Your task to perform on an android device: Search for seafood restaurants on Google Maps Image 0: 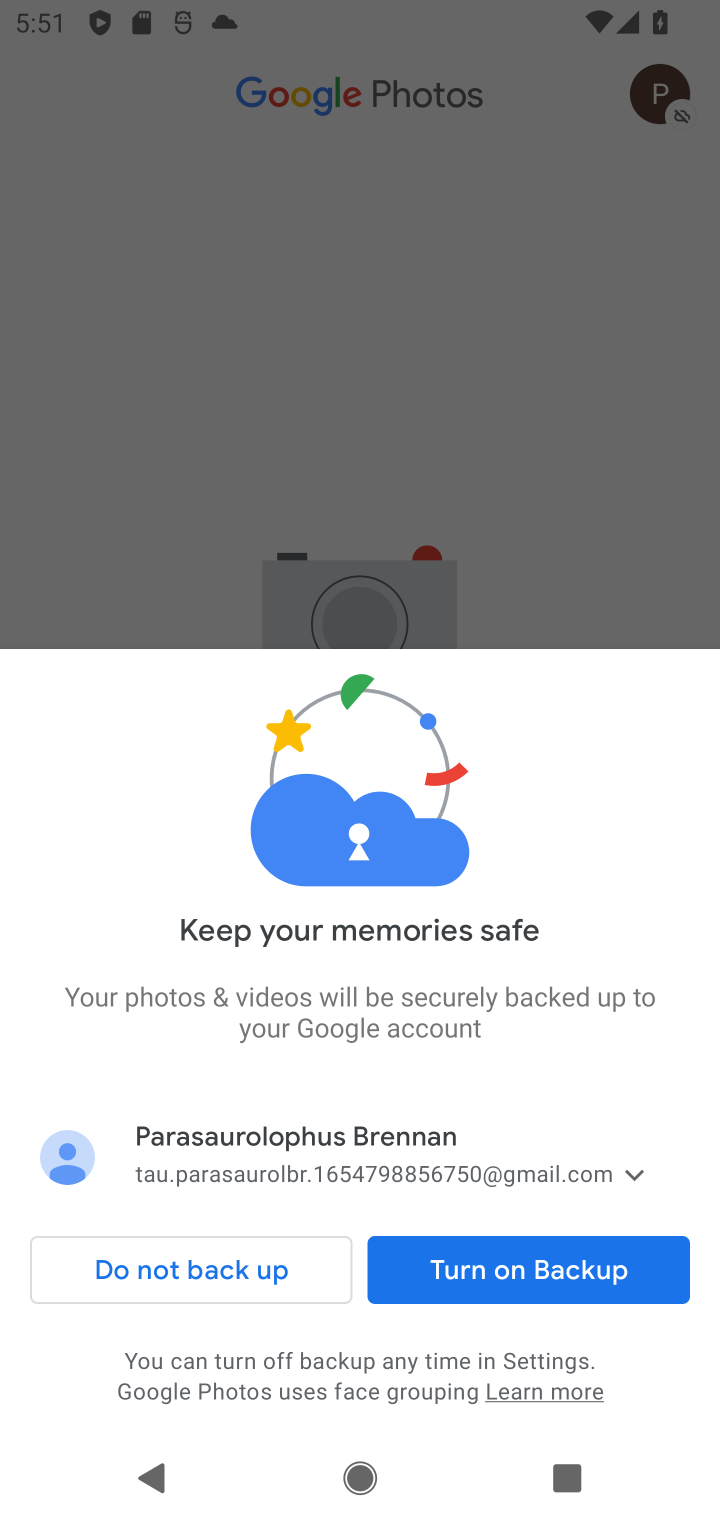
Step 0: press home button
Your task to perform on an android device: Search for seafood restaurants on Google Maps Image 1: 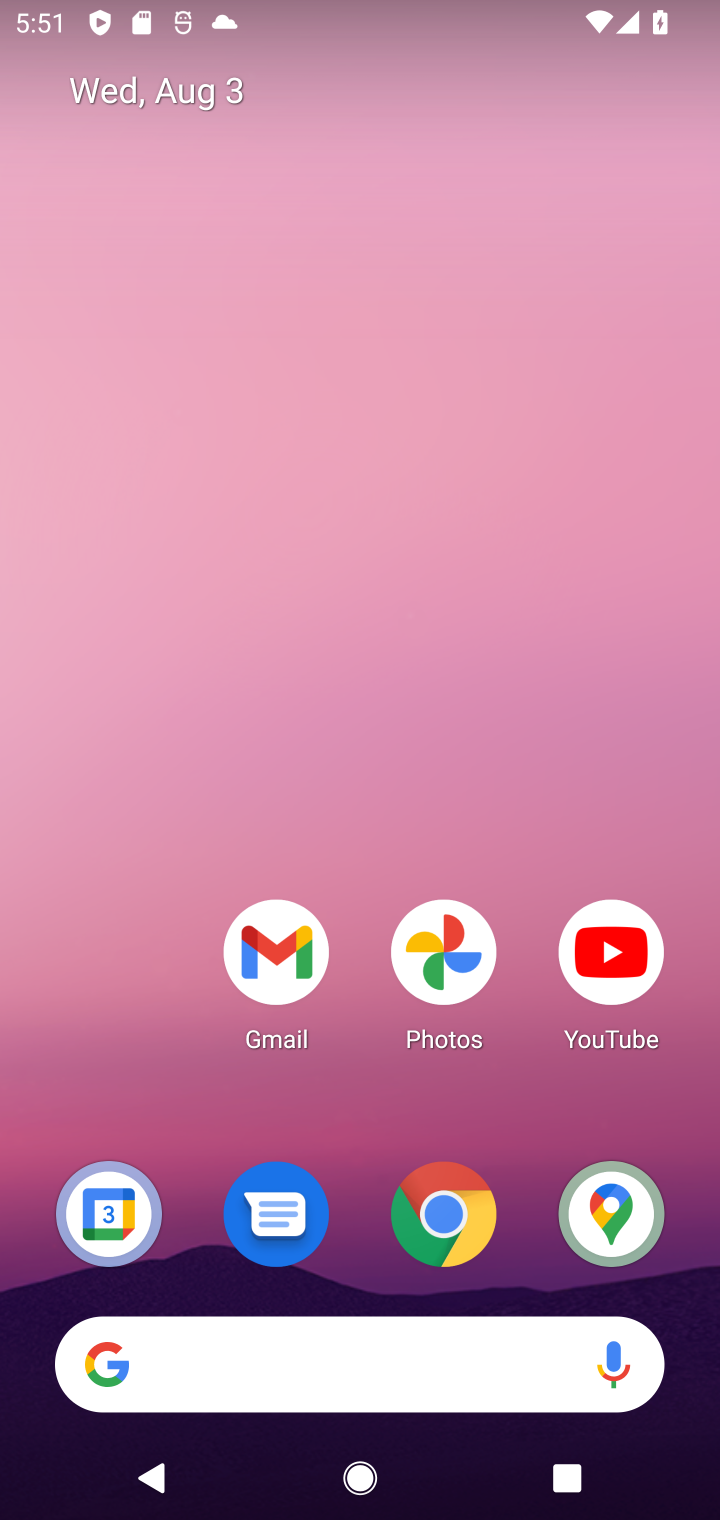
Step 1: drag from (475, 1212) to (444, 142)
Your task to perform on an android device: Search for seafood restaurants on Google Maps Image 2: 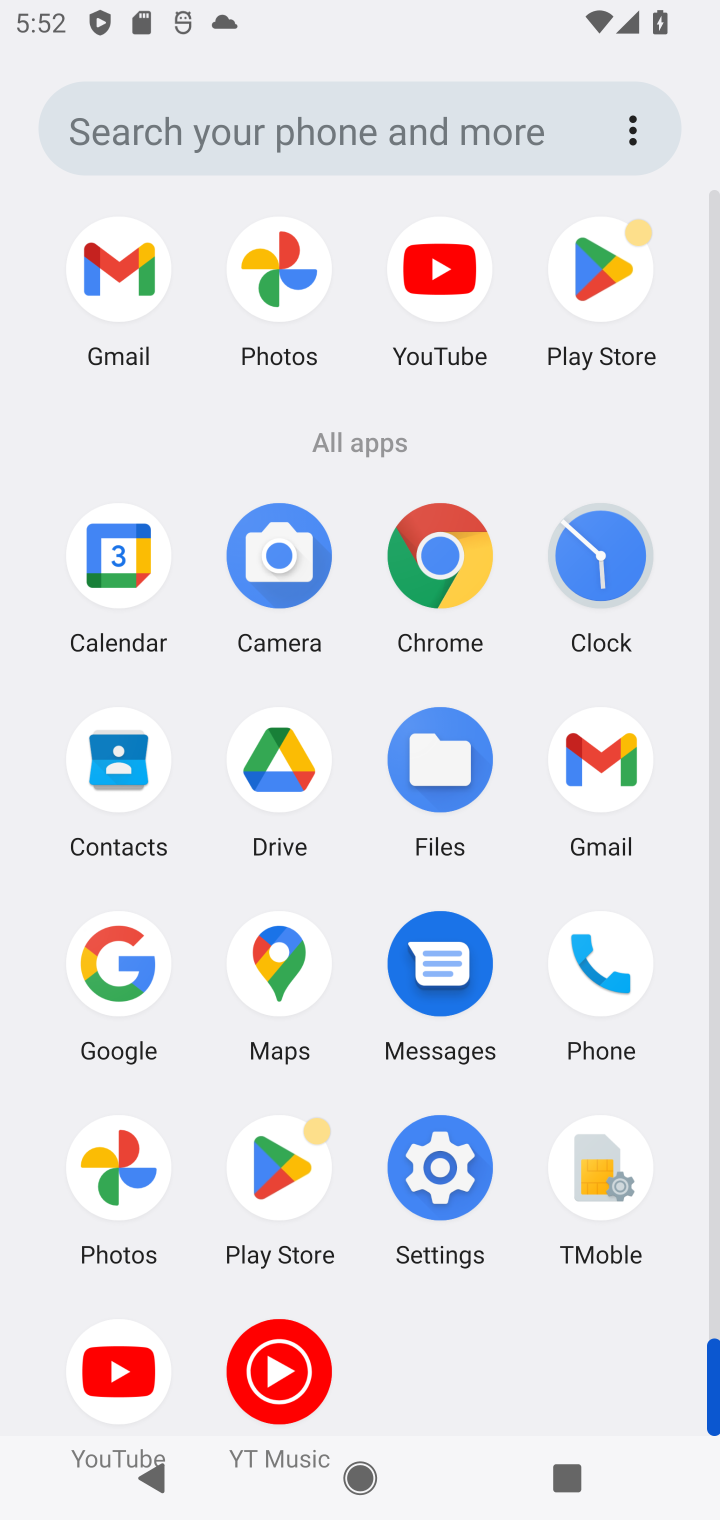
Step 2: click (314, 979)
Your task to perform on an android device: Search for seafood restaurants on Google Maps Image 3: 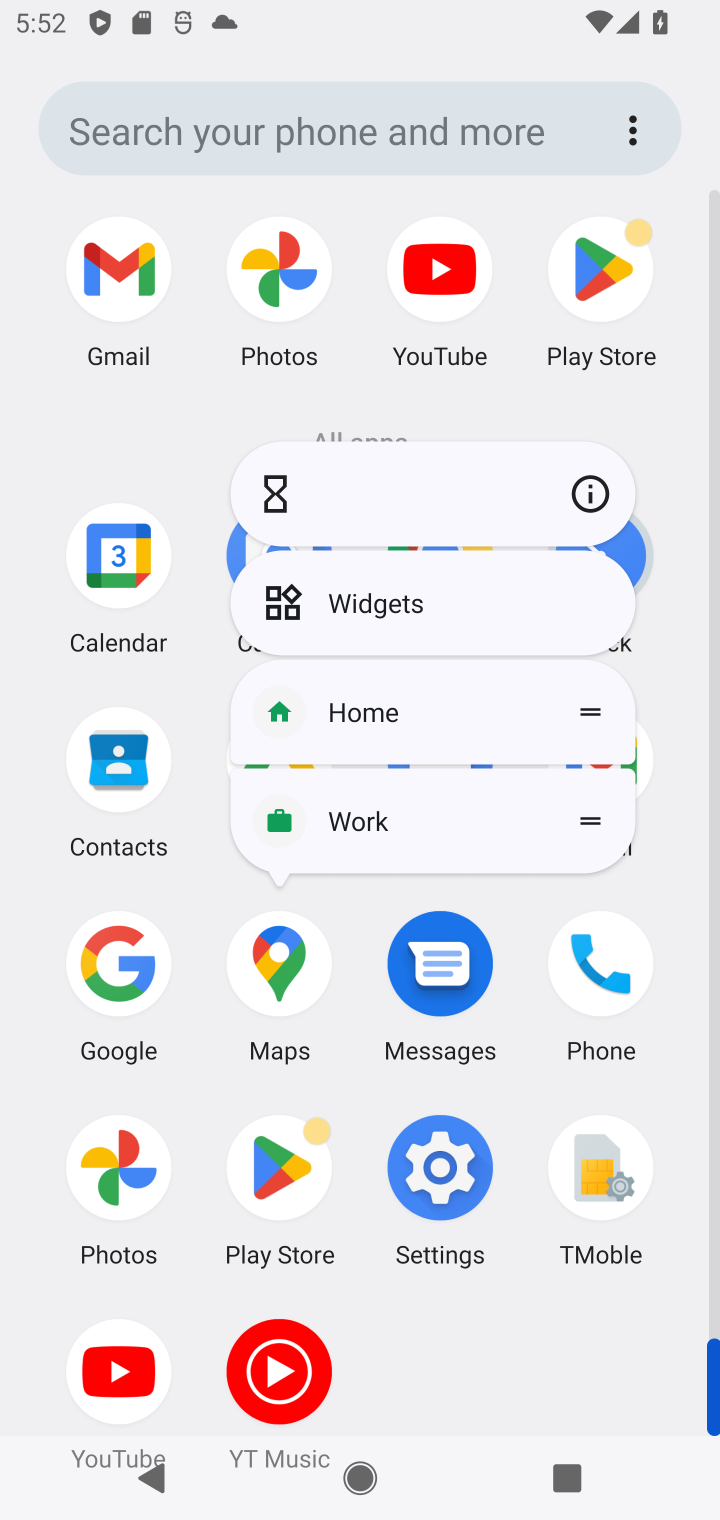
Step 3: click (297, 961)
Your task to perform on an android device: Search for seafood restaurants on Google Maps Image 4: 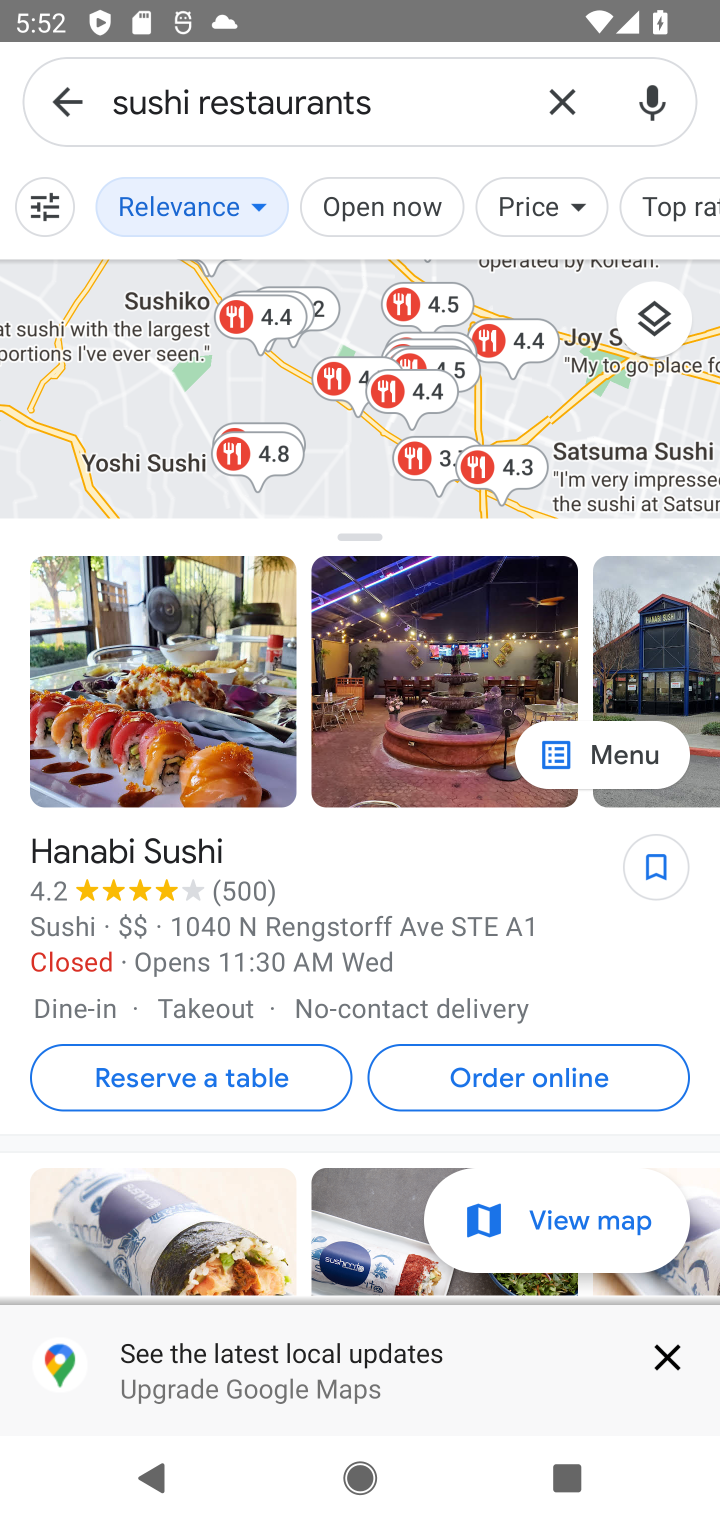
Step 4: click (574, 116)
Your task to perform on an android device: Search for seafood restaurants on Google Maps Image 5: 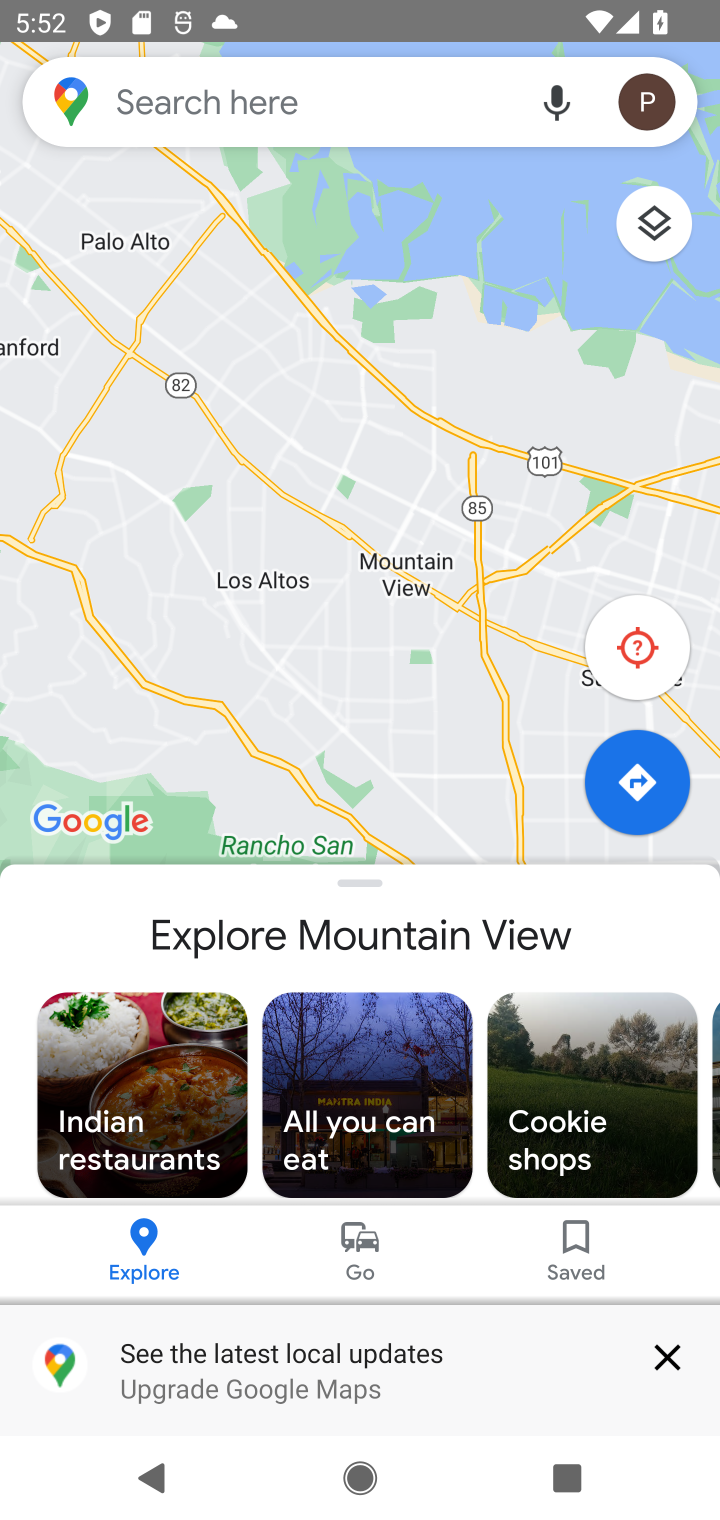
Step 5: click (431, 123)
Your task to perform on an android device: Search for seafood restaurants on Google Maps Image 6: 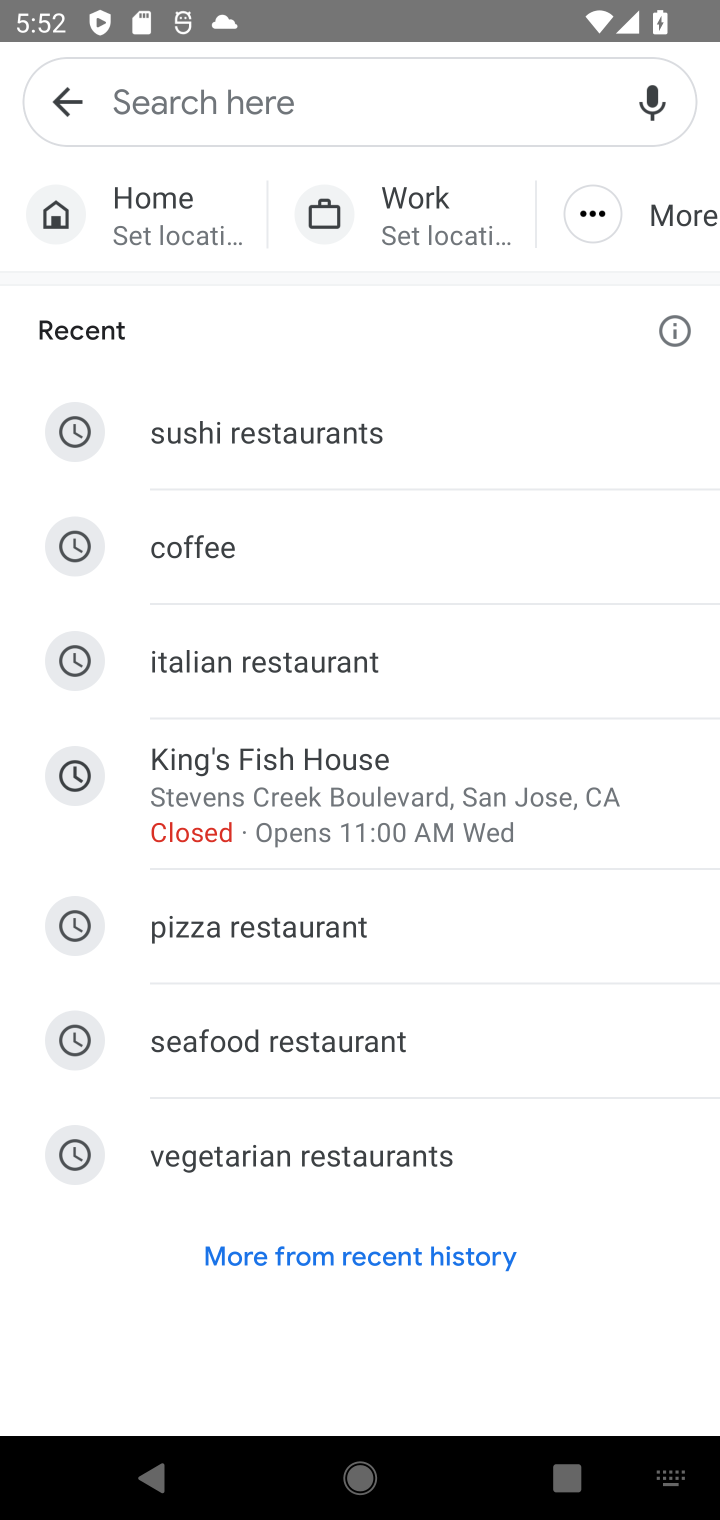
Step 6: click (379, 1040)
Your task to perform on an android device: Search for seafood restaurants on Google Maps Image 7: 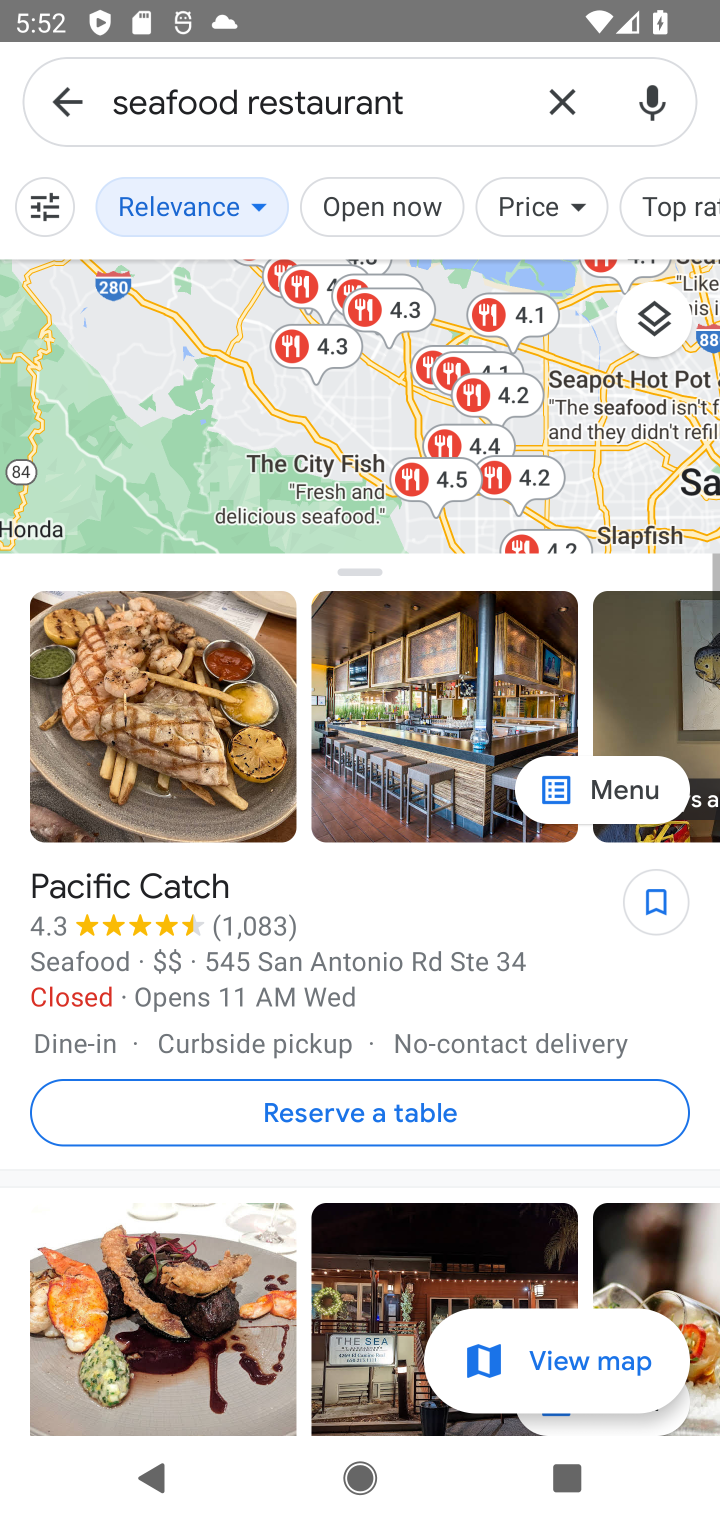
Step 7: task complete